Your task to perform on an android device: open app "Lyft - Rideshare, Bikes, Scooters & Transit" (install if not already installed) Image 0: 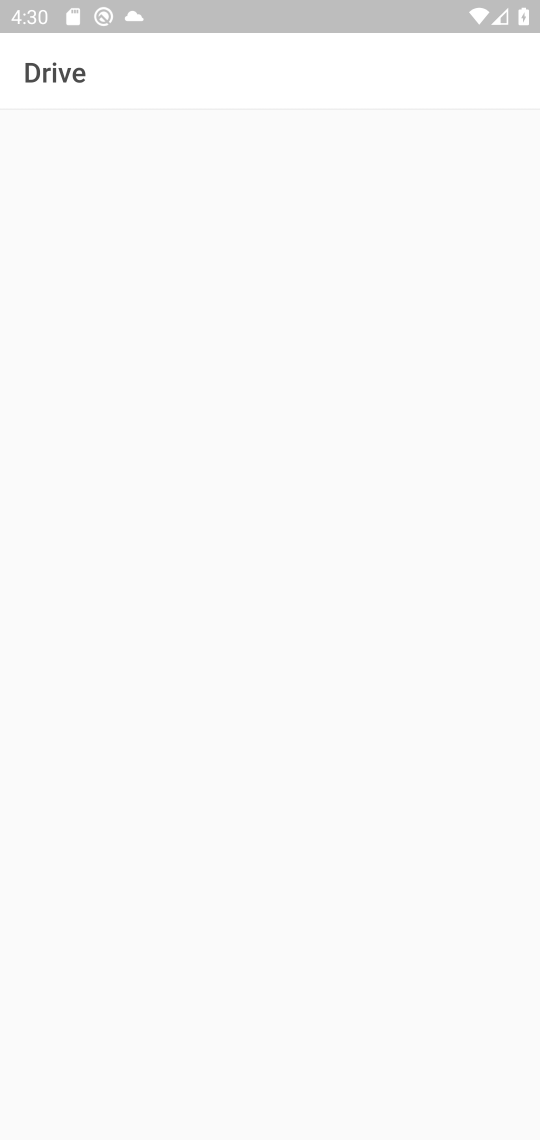
Step 0: press home button
Your task to perform on an android device: open app "Lyft - Rideshare, Bikes, Scooters & Transit" (install if not already installed) Image 1: 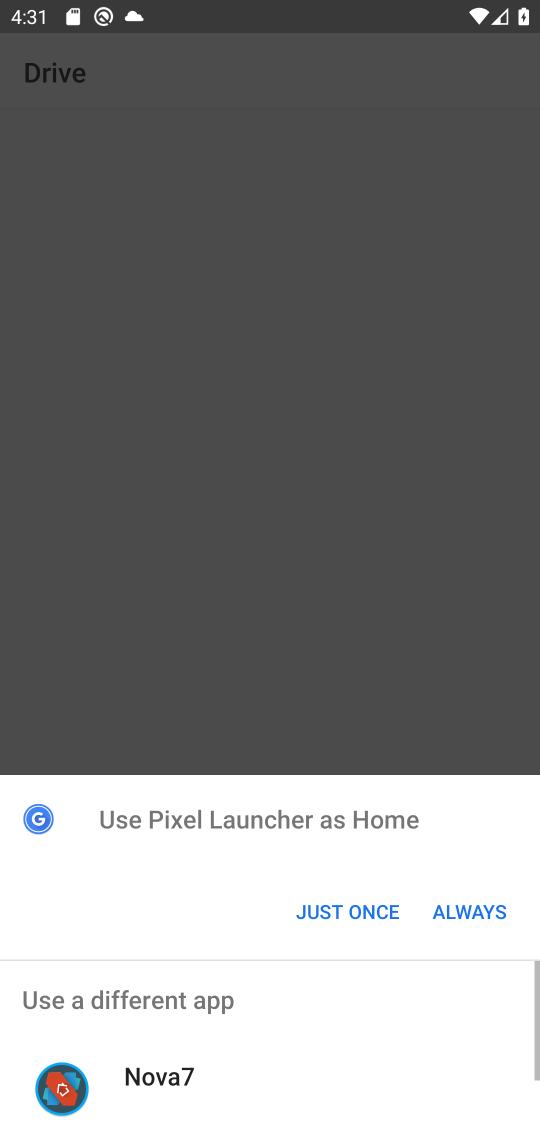
Step 1: click (346, 904)
Your task to perform on an android device: open app "Lyft - Rideshare, Bikes, Scooters & Transit" (install if not already installed) Image 2: 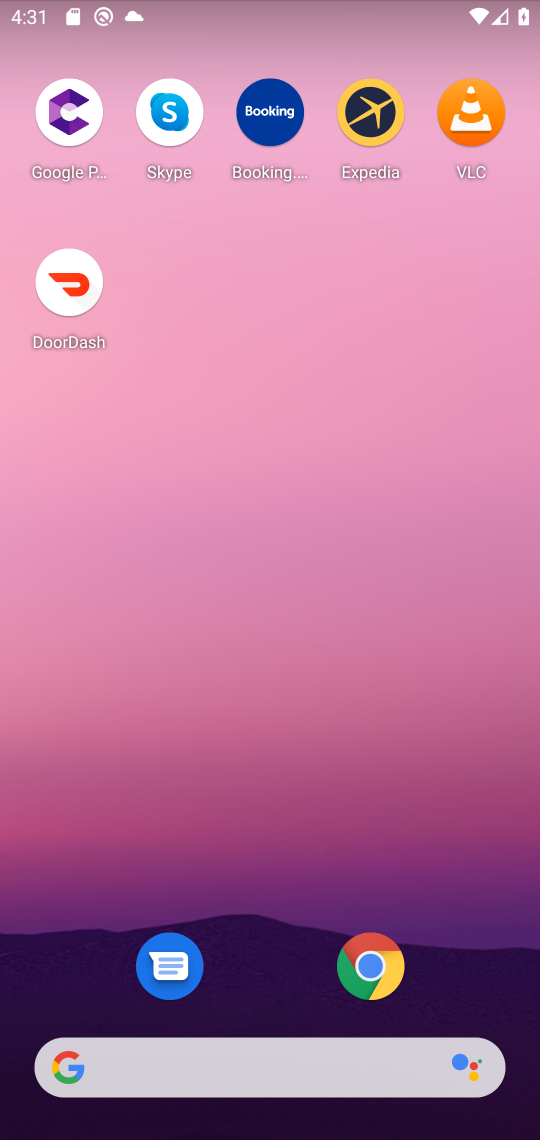
Step 2: drag from (252, 1033) to (252, 67)
Your task to perform on an android device: open app "Lyft - Rideshare, Bikes, Scooters & Transit" (install if not already installed) Image 3: 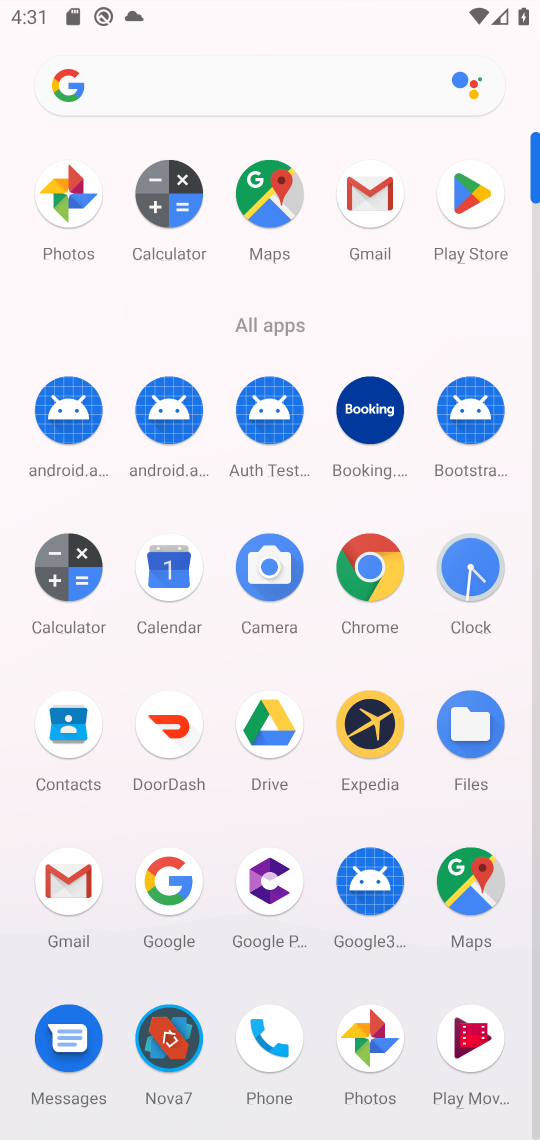
Step 3: click (453, 204)
Your task to perform on an android device: open app "Lyft - Rideshare, Bikes, Scooters & Transit" (install if not already installed) Image 4: 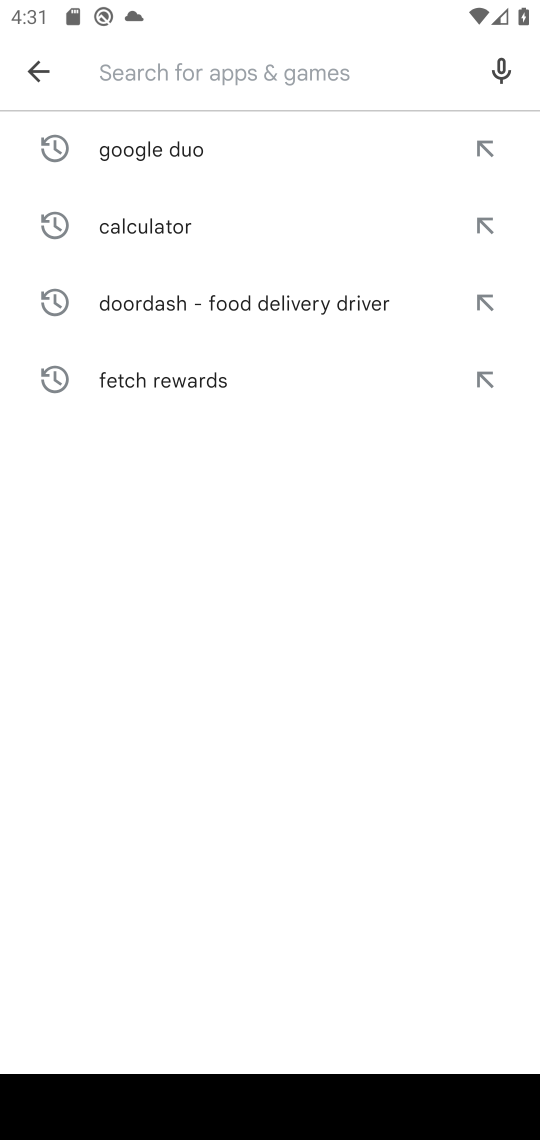
Step 4: type " "Lyft - Rideshare, Bikes, Scooters & Transit"
Your task to perform on an android device: open app "Lyft - Rideshare, Bikes, Scooters & Transit" (install if not already installed) Image 5: 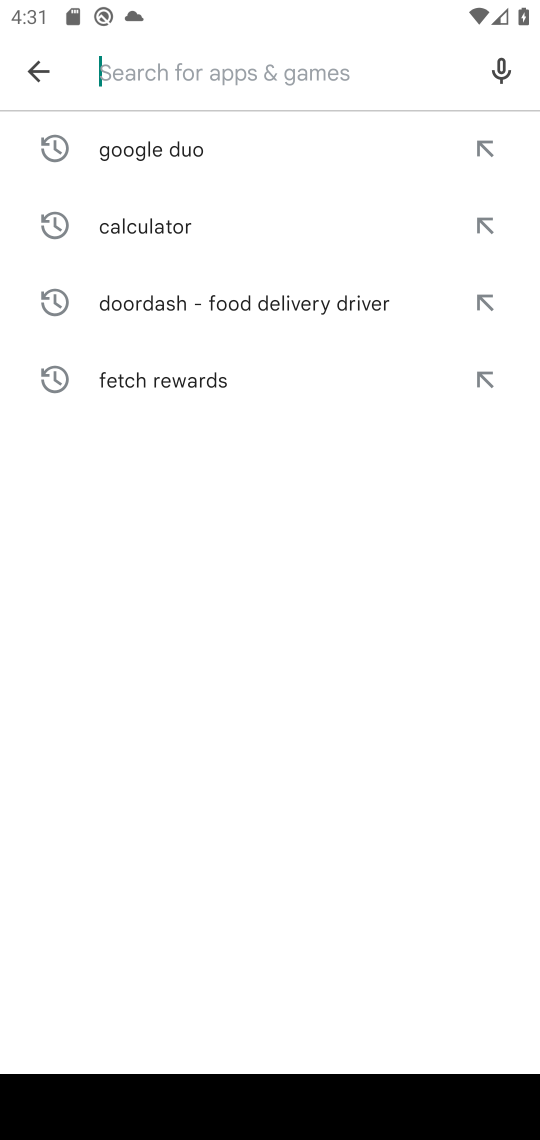
Step 5: task complete